Your task to perform on an android device: Show me recent news Image 0: 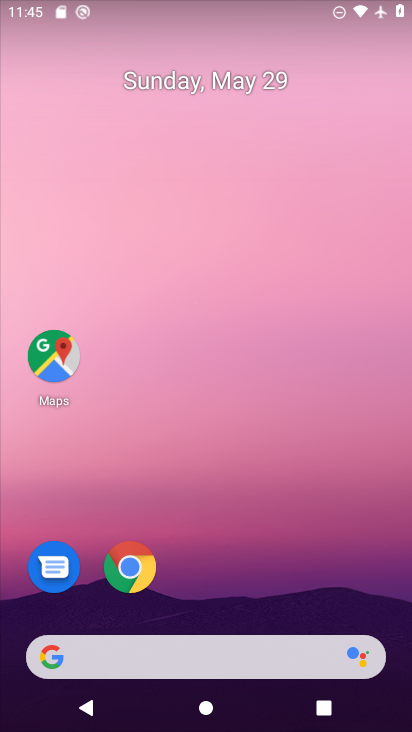
Step 0: drag from (390, 616) to (323, 153)
Your task to perform on an android device: Show me recent news Image 1: 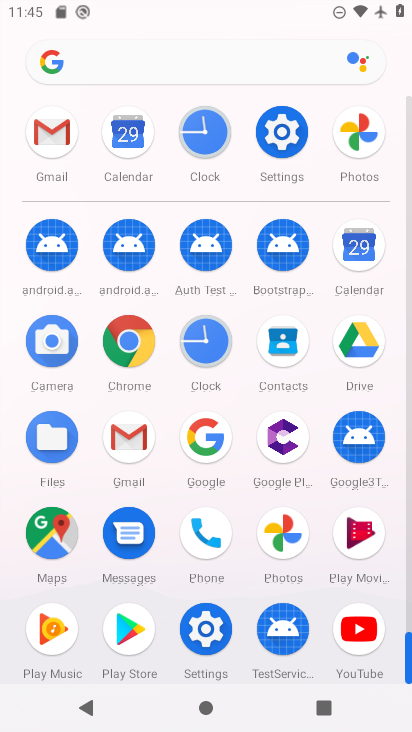
Step 1: task complete